Your task to perform on an android device: change notifications settings Image 0: 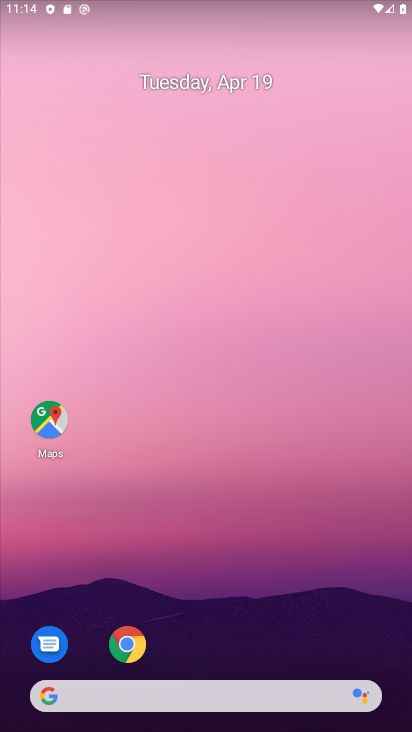
Step 0: drag from (203, 725) to (203, 111)
Your task to perform on an android device: change notifications settings Image 1: 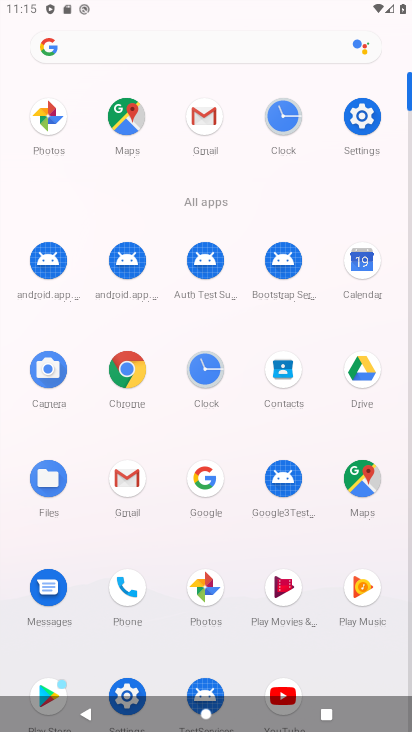
Step 1: click (361, 121)
Your task to perform on an android device: change notifications settings Image 2: 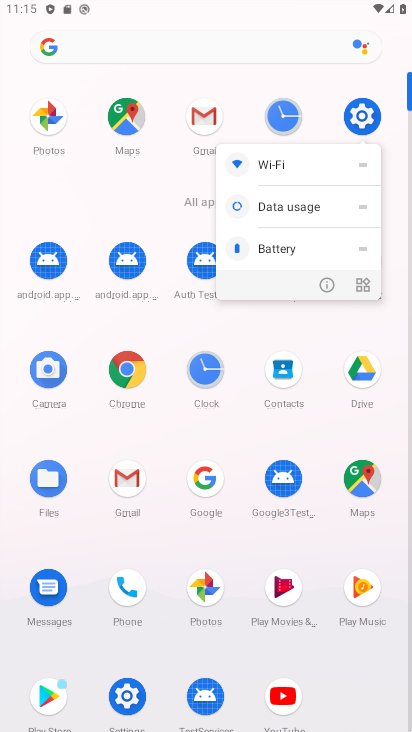
Step 2: click (358, 117)
Your task to perform on an android device: change notifications settings Image 3: 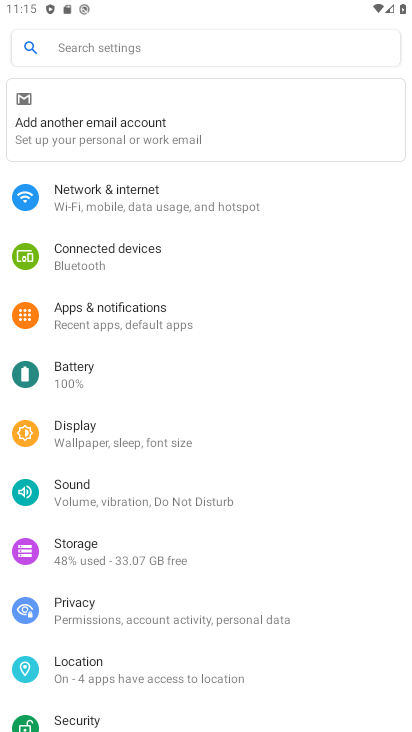
Step 3: click (110, 313)
Your task to perform on an android device: change notifications settings Image 4: 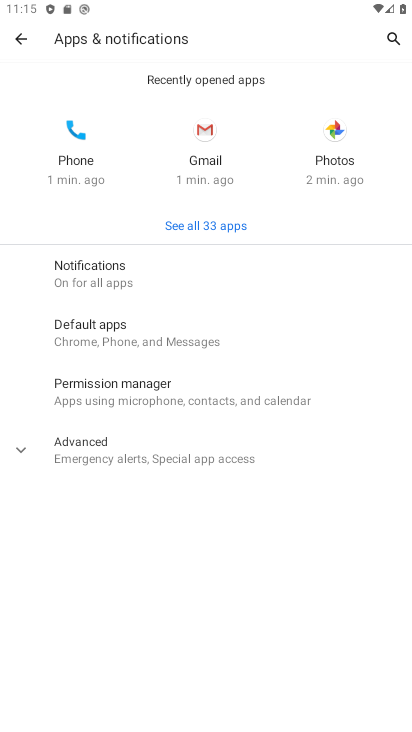
Step 4: click (93, 274)
Your task to perform on an android device: change notifications settings Image 5: 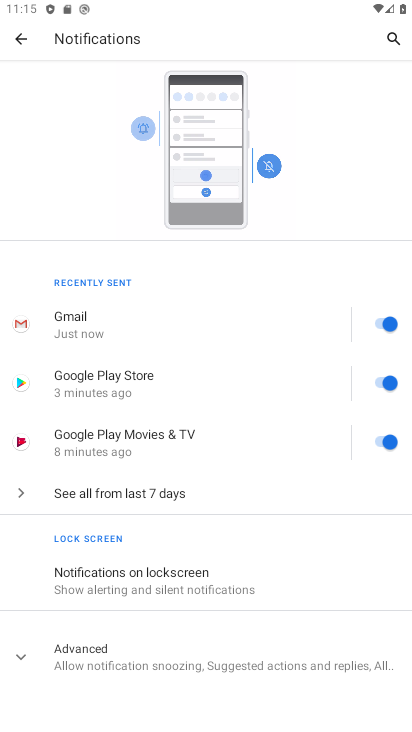
Step 5: click (173, 655)
Your task to perform on an android device: change notifications settings Image 6: 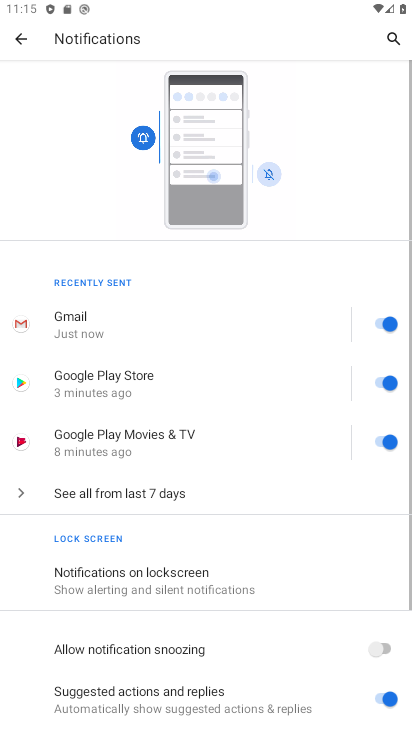
Step 6: drag from (245, 674) to (233, 277)
Your task to perform on an android device: change notifications settings Image 7: 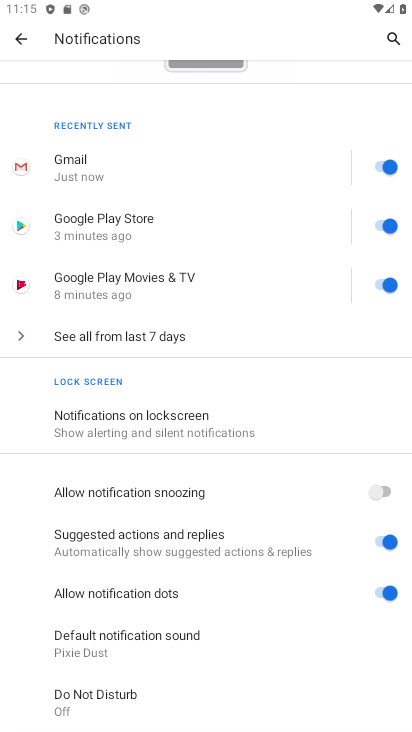
Step 7: click (387, 491)
Your task to perform on an android device: change notifications settings Image 8: 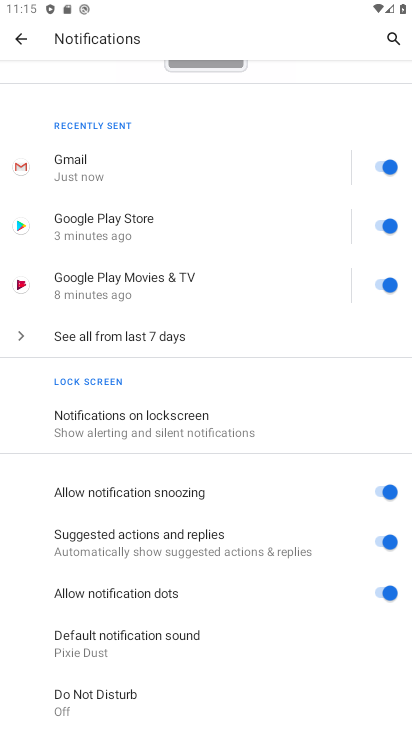
Step 8: task complete